Your task to perform on an android device: Show me the alarms in the clock app Image 0: 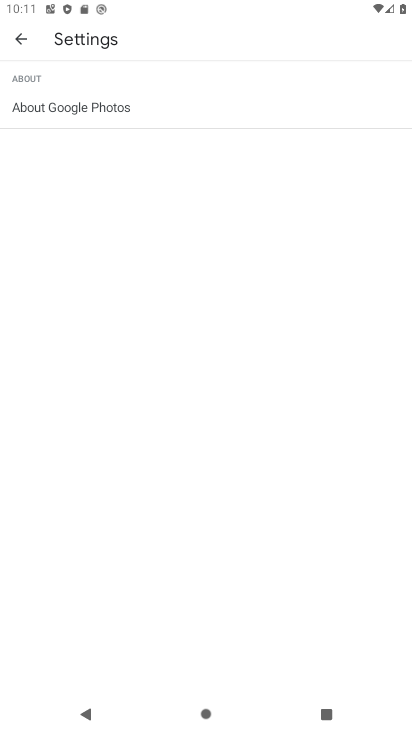
Step 0: press home button
Your task to perform on an android device: Show me the alarms in the clock app Image 1: 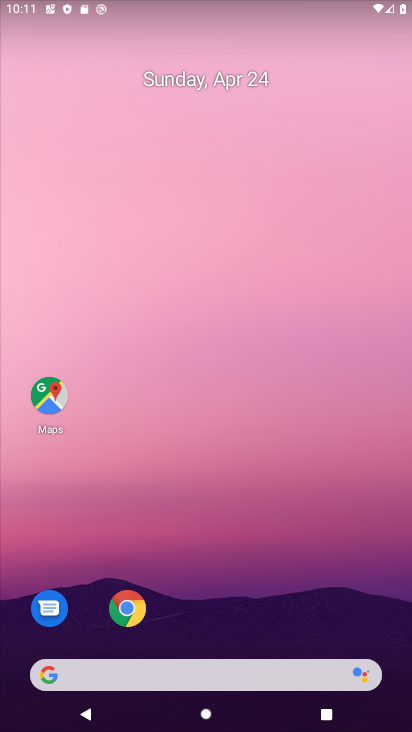
Step 1: drag from (267, 615) to (294, 71)
Your task to perform on an android device: Show me the alarms in the clock app Image 2: 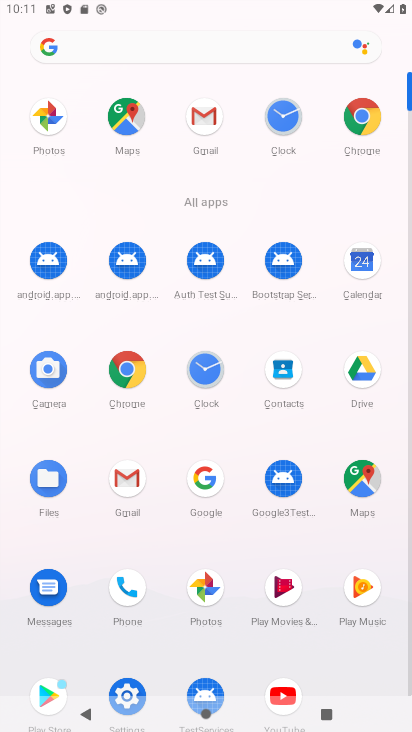
Step 2: click (282, 115)
Your task to perform on an android device: Show me the alarms in the clock app Image 3: 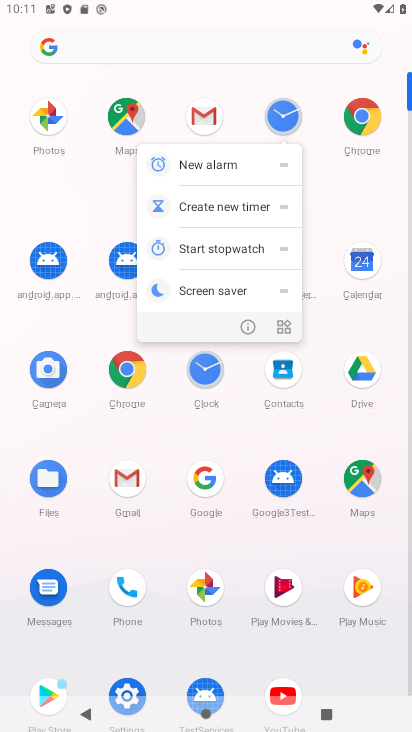
Step 3: click (205, 349)
Your task to perform on an android device: Show me the alarms in the clock app Image 4: 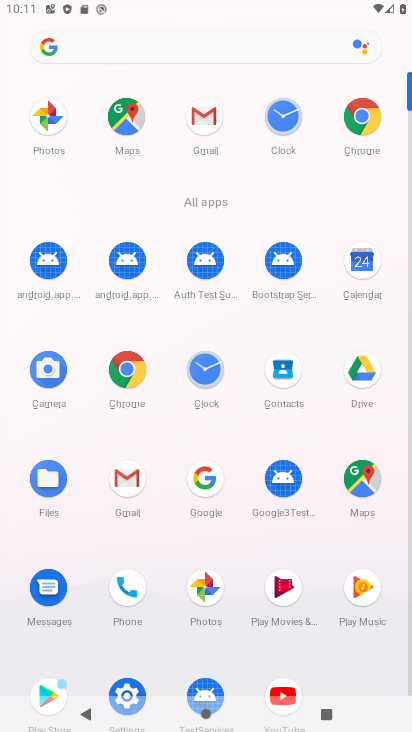
Step 4: click (200, 366)
Your task to perform on an android device: Show me the alarms in the clock app Image 5: 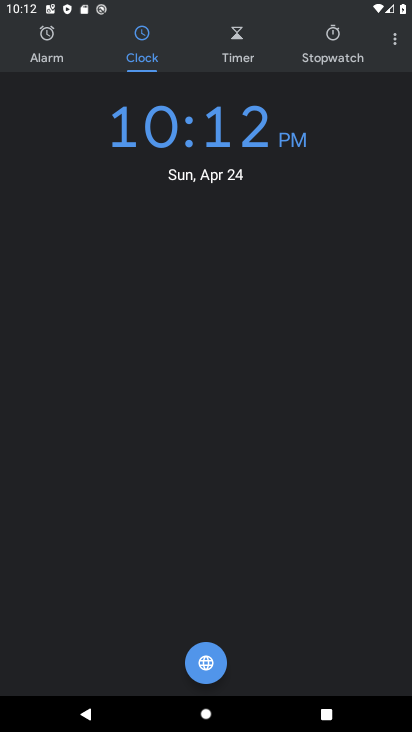
Step 5: click (56, 36)
Your task to perform on an android device: Show me the alarms in the clock app Image 6: 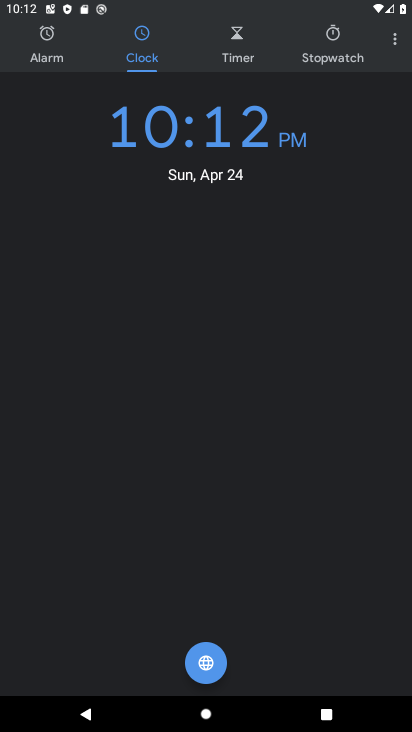
Step 6: click (56, 38)
Your task to perform on an android device: Show me the alarms in the clock app Image 7: 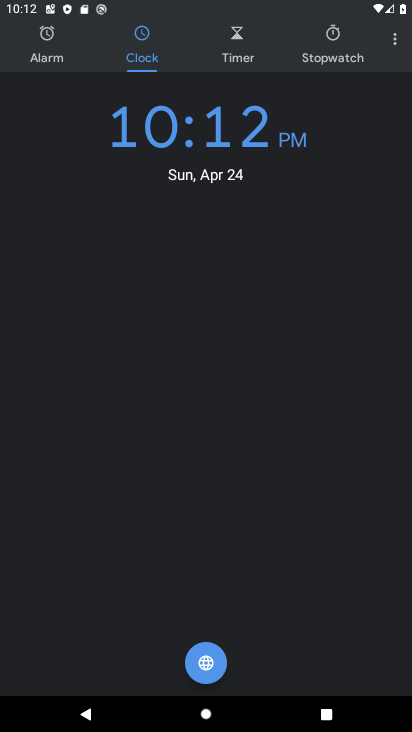
Step 7: click (57, 47)
Your task to perform on an android device: Show me the alarms in the clock app Image 8: 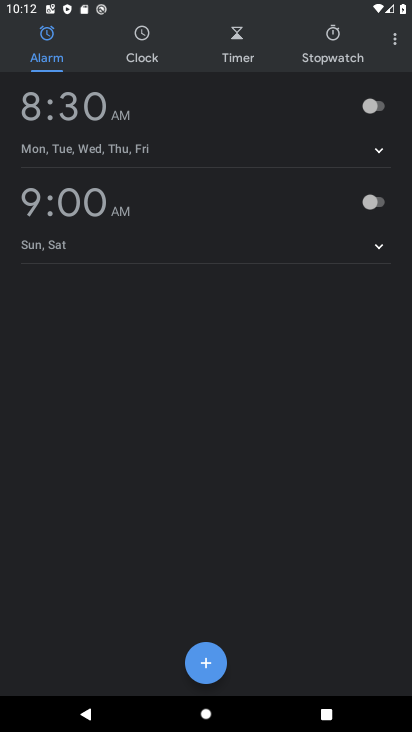
Step 8: task complete